Your task to perform on an android device: Go to Android settings Image 0: 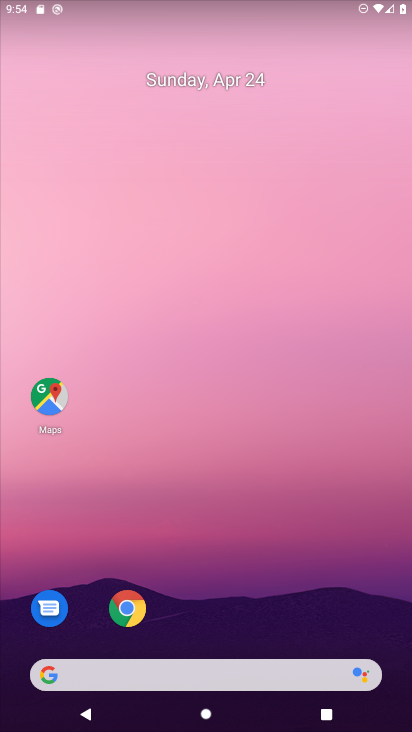
Step 0: drag from (242, 696) to (212, 149)
Your task to perform on an android device: Go to Android settings Image 1: 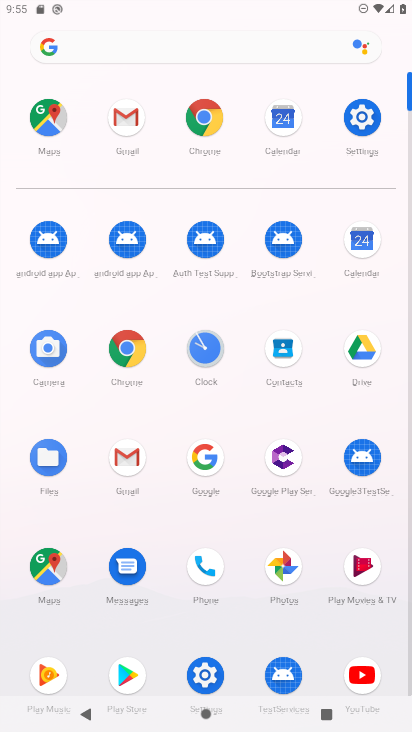
Step 1: click (350, 121)
Your task to perform on an android device: Go to Android settings Image 2: 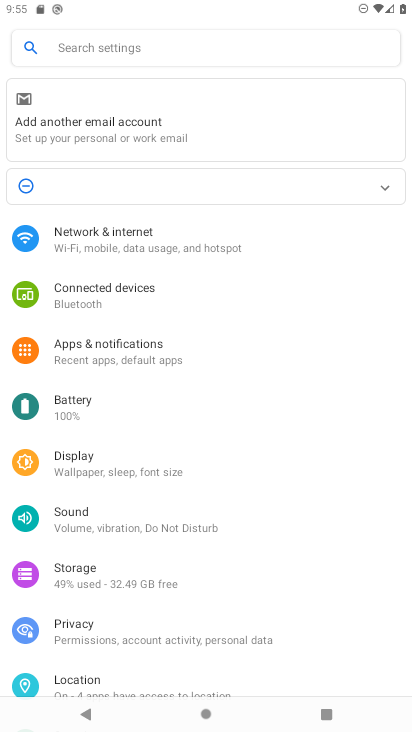
Step 2: click (171, 70)
Your task to perform on an android device: Go to Android settings Image 3: 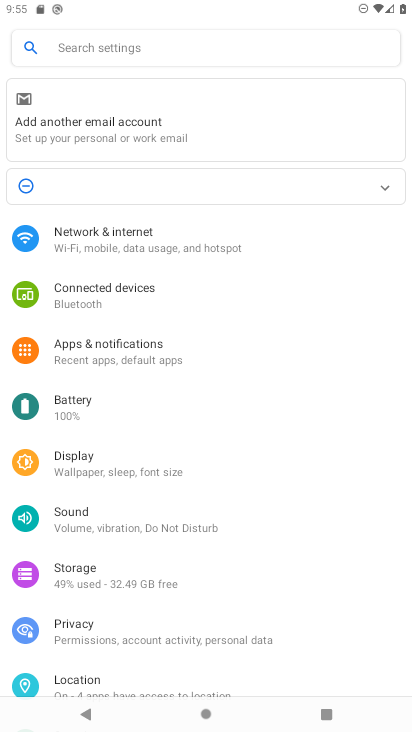
Step 3: click (159, 58)
Your task to perform on an android device: Go to Android settings Image 4: 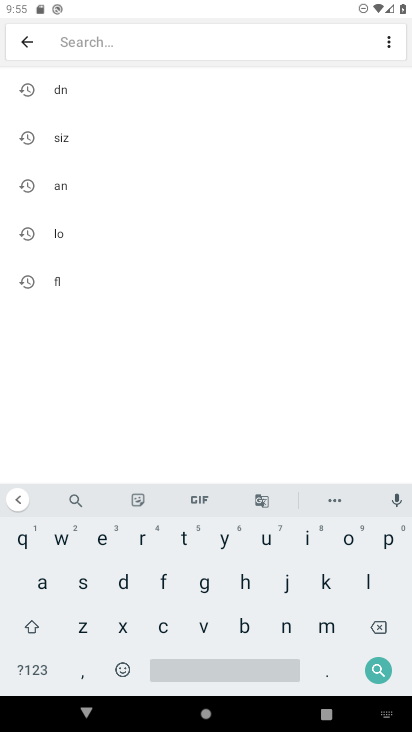
Step 4: click (40, 581)
Your task to perform on an android device: Go to Android settings Image 5: 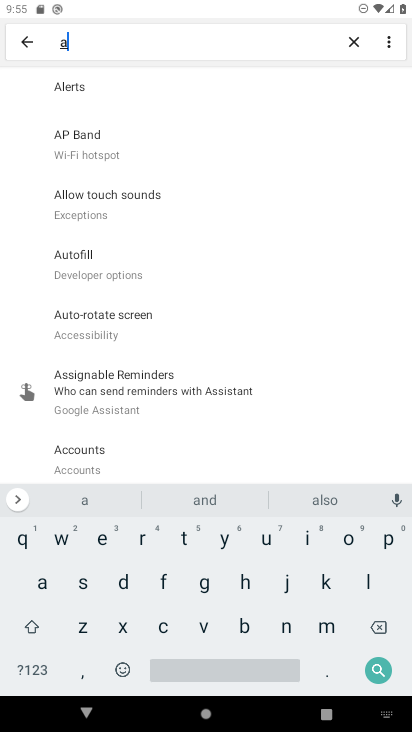
Step 5: click (280, 626)
Your task to perform on an android device: Go to Android settings Image 6: 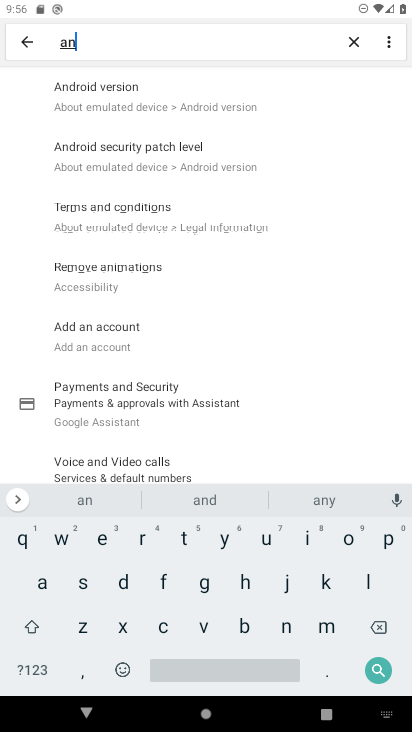
Step 6: click (172, 89)
Your task to perform on an android device: Go to Android settings Image 7: 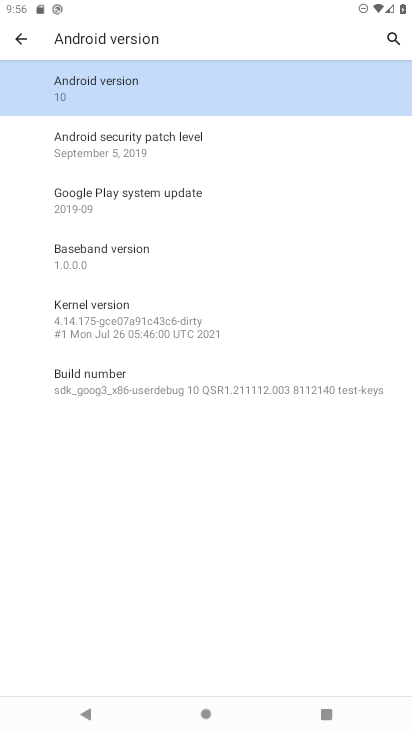
Step 7: task complete